Your task to perform on an android device: Open Yahoo.com Image 0: 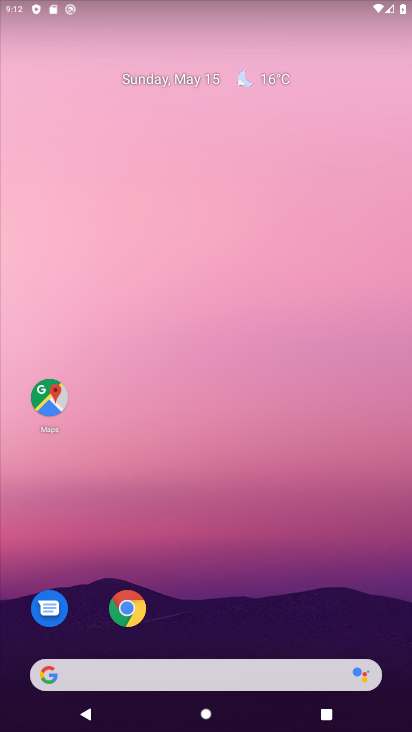
Step 0: click (127, 607)
Your task to perform on an android device: Open Yahoo.com Image 1: 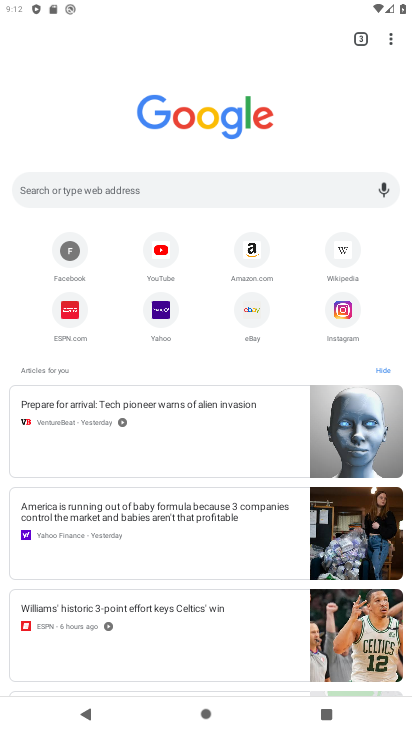
Step 1: click (157, 323)
Your task to perform on an android device: Open Yahoo.com Image 2: 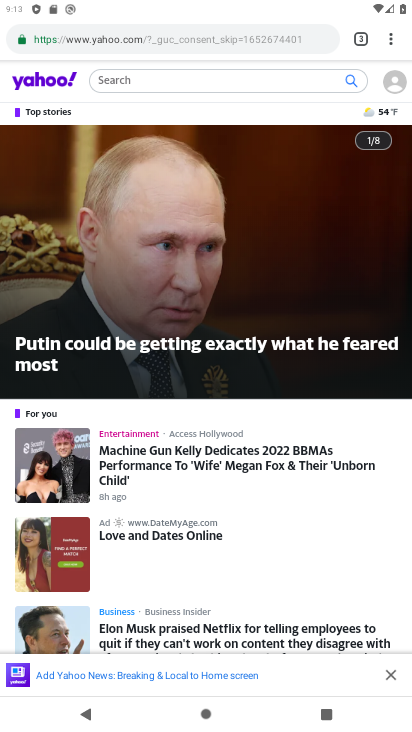
Step 2: task complete